Your task to perform on an android device: View the shopping cart on target. Search for "logitech g pro" on target, select the first entry, and add it to the cart. Image 0: 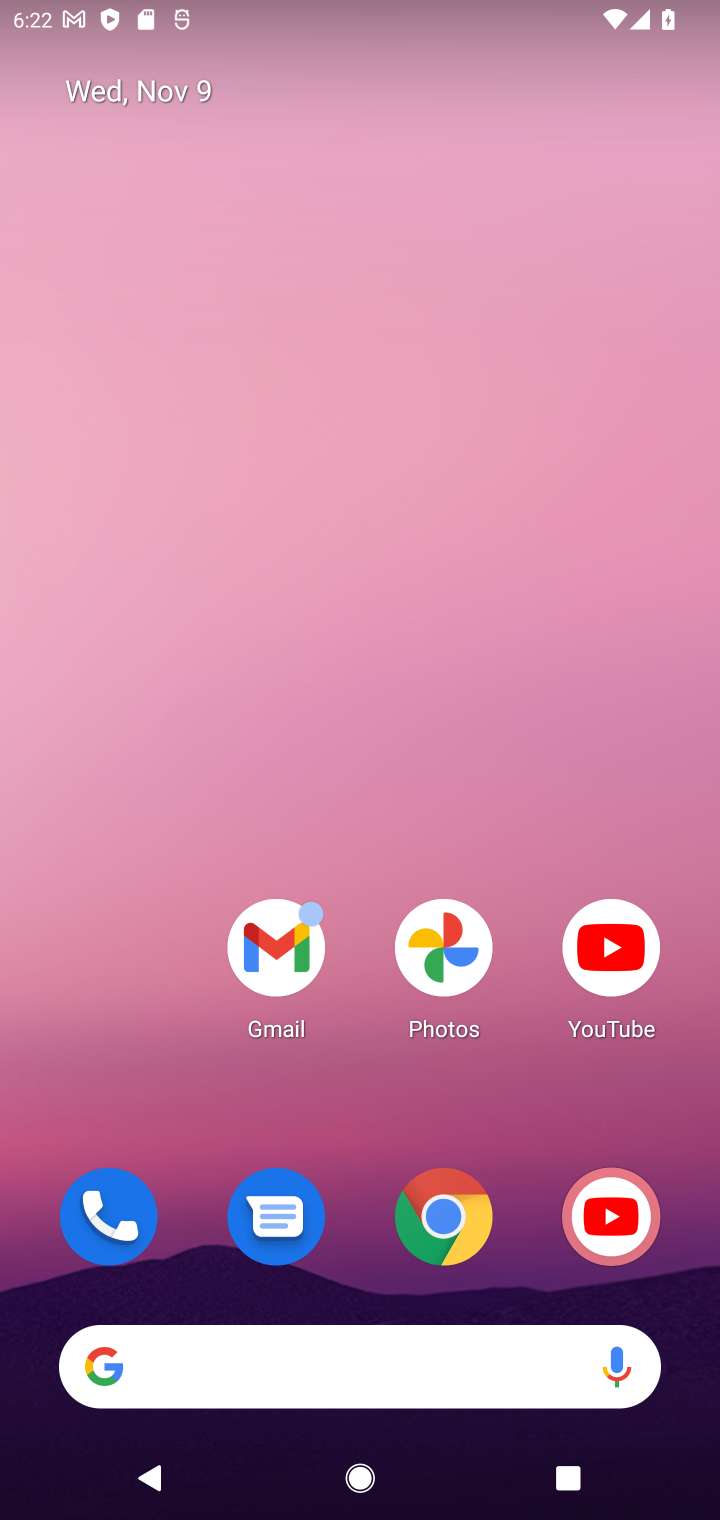
Step 0: drag from (361, 1296) to (423, 298)
Your task to perform on an android device: View the shopping cart on target. Search for "logitech g pro" on target, select the first entry, and add it to the cart. Image 1: 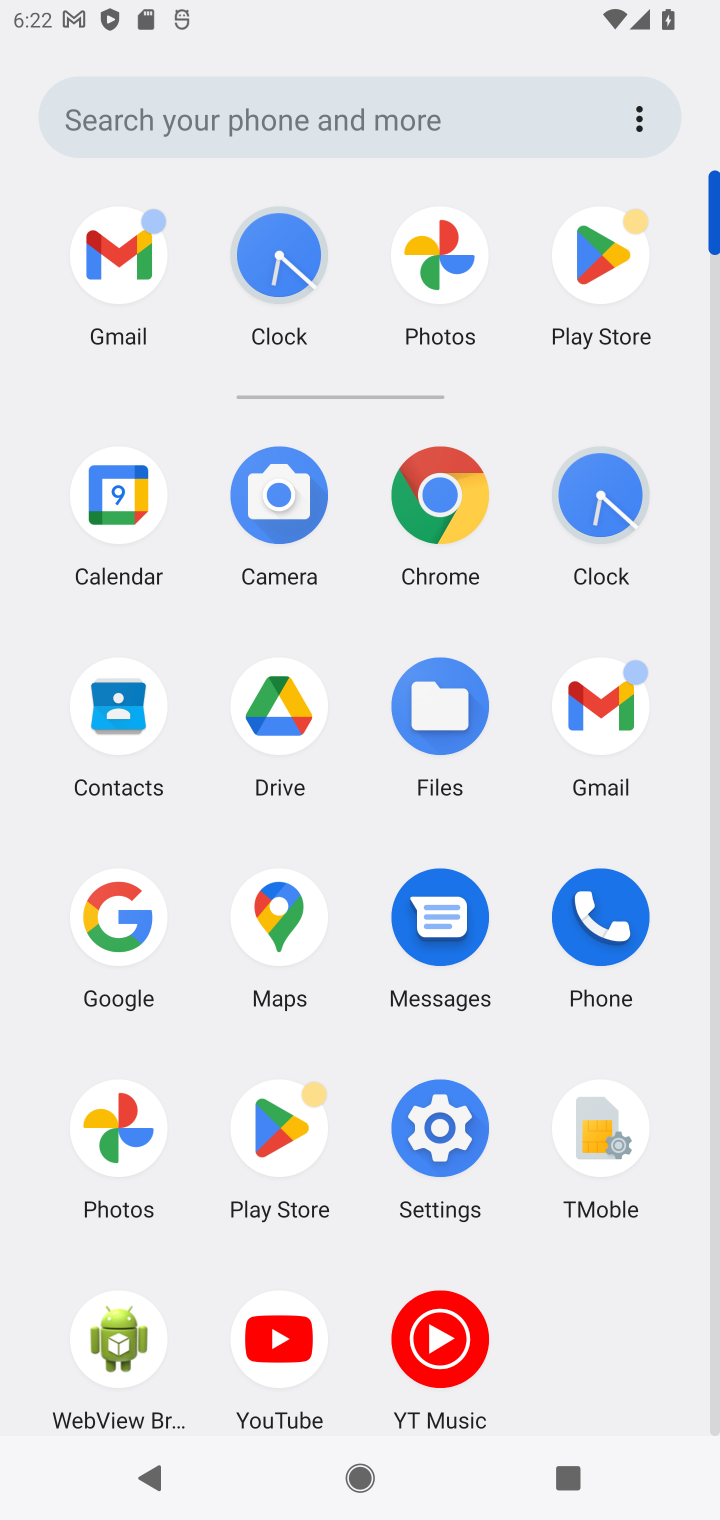
Step 1: click (444, 501)
Your task to perform on an android device: View the shopping cart on target. Search for "logitech g pro" on target, select the first entry, and add it to the cart. Image 2: 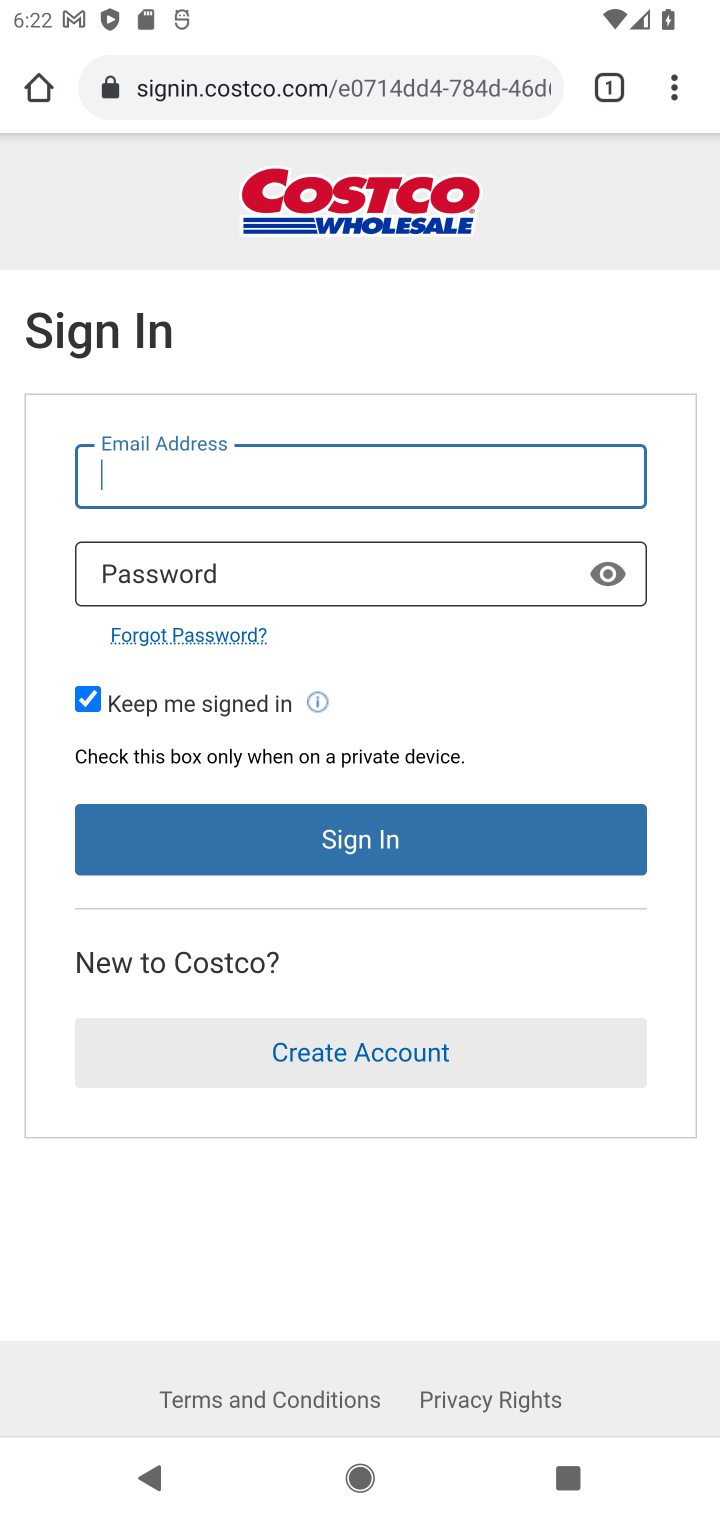
Step 2: click (418, 85)
Your task to perform on an android device: View the shopping cart on target. Search for "logitech g pro" on target, select the first entry, and add it to the cart. Image 3: 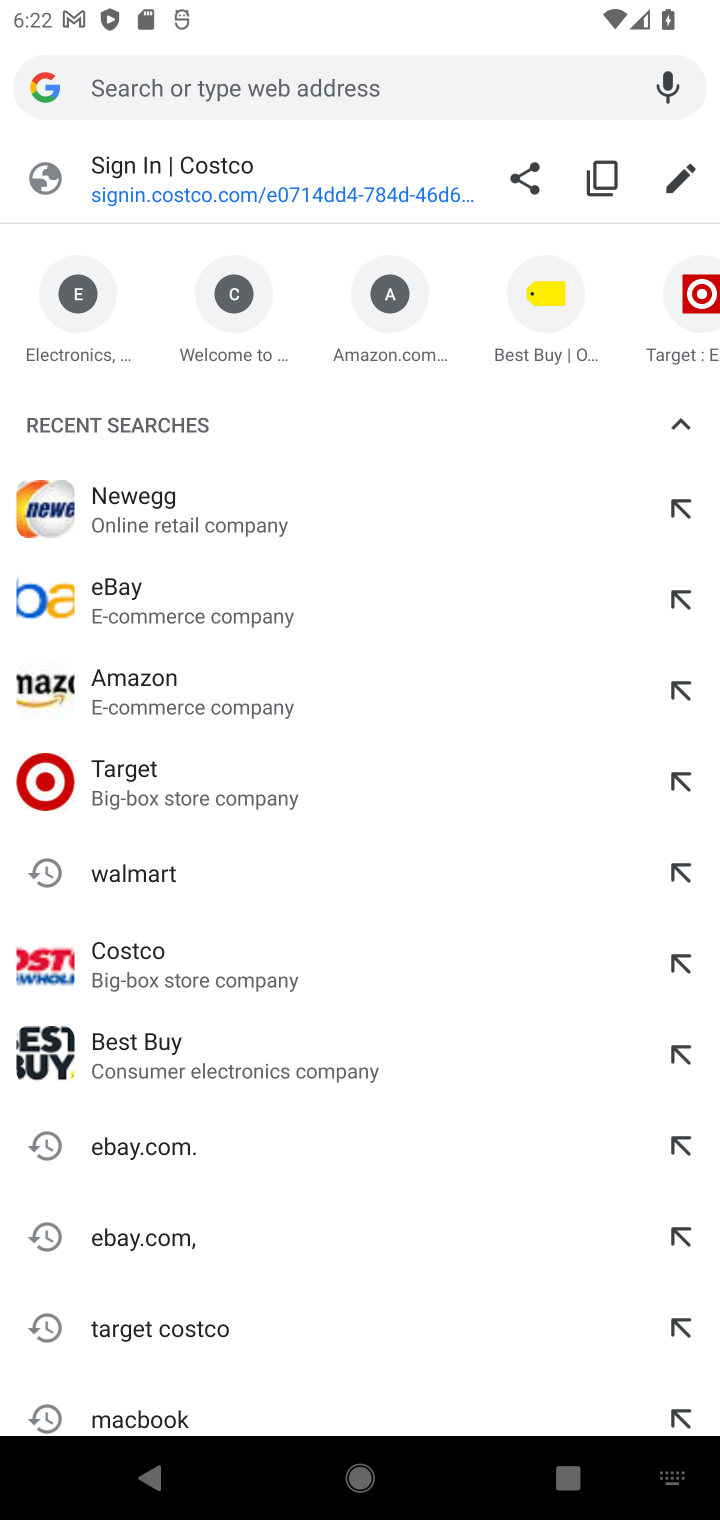
Step 3: type "target.com"
Your task to perform on an android device: View the shopping cart on target. Search for "logitech g pro" on target, select the first entry, and add it to the cart. Image 4: 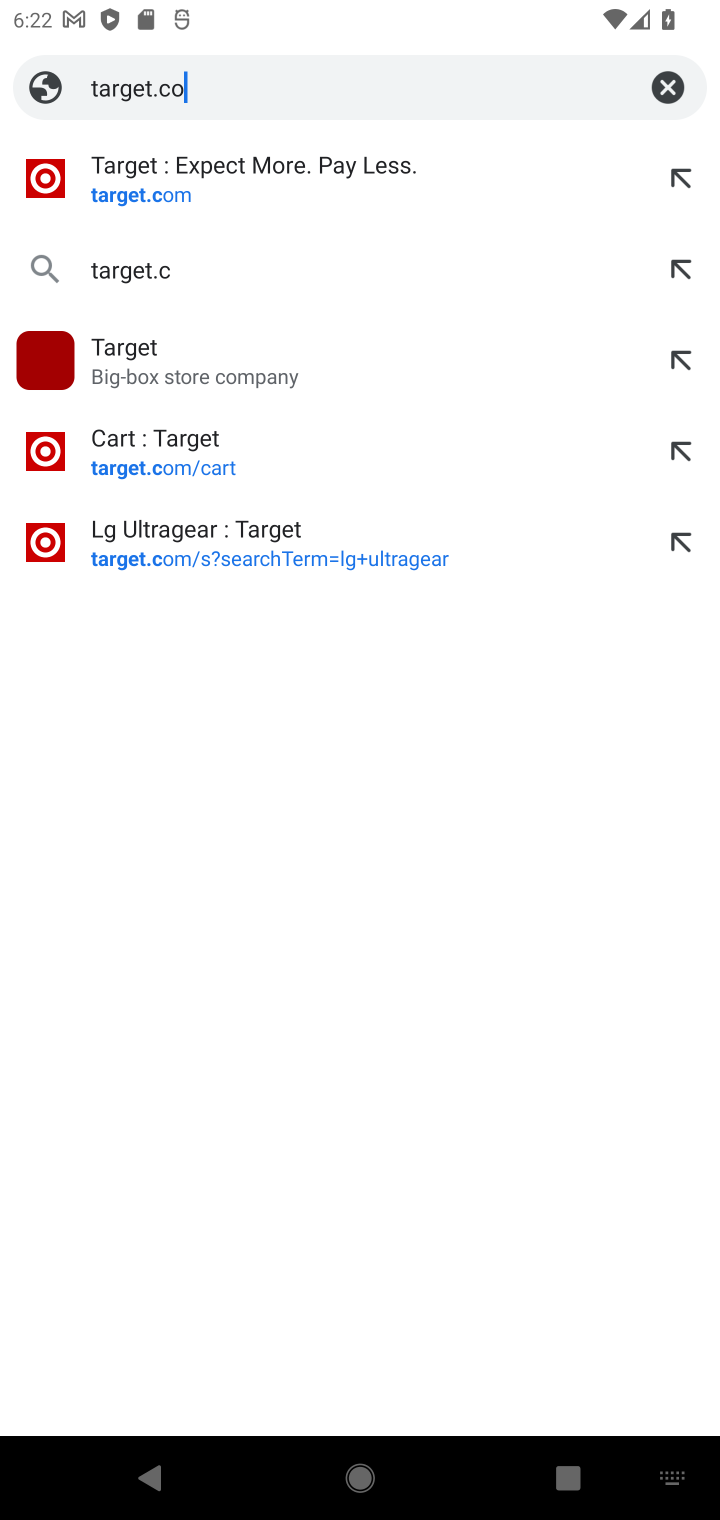
Step 4: press enter
Your task to perform on an android device: View the shopping cart on target. Search for "logitech g pro" on target, select the first entry, and add it to the cart. Image 5: 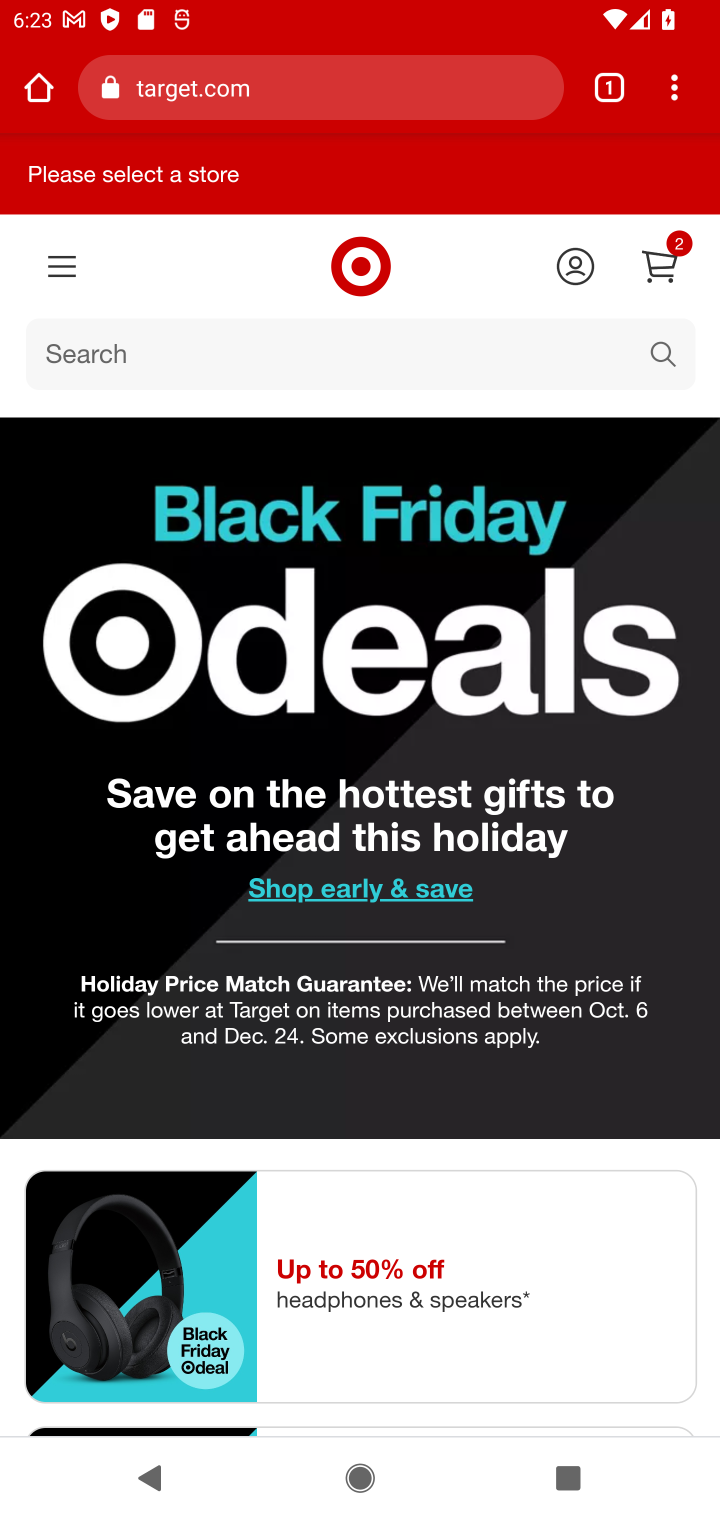
Step 5: click (662, 256)
Your task to perform on an android device: View the shopping cart on target. Search for "logitech g pro" on target, select the first entry, and add it to the cart. Image 6: 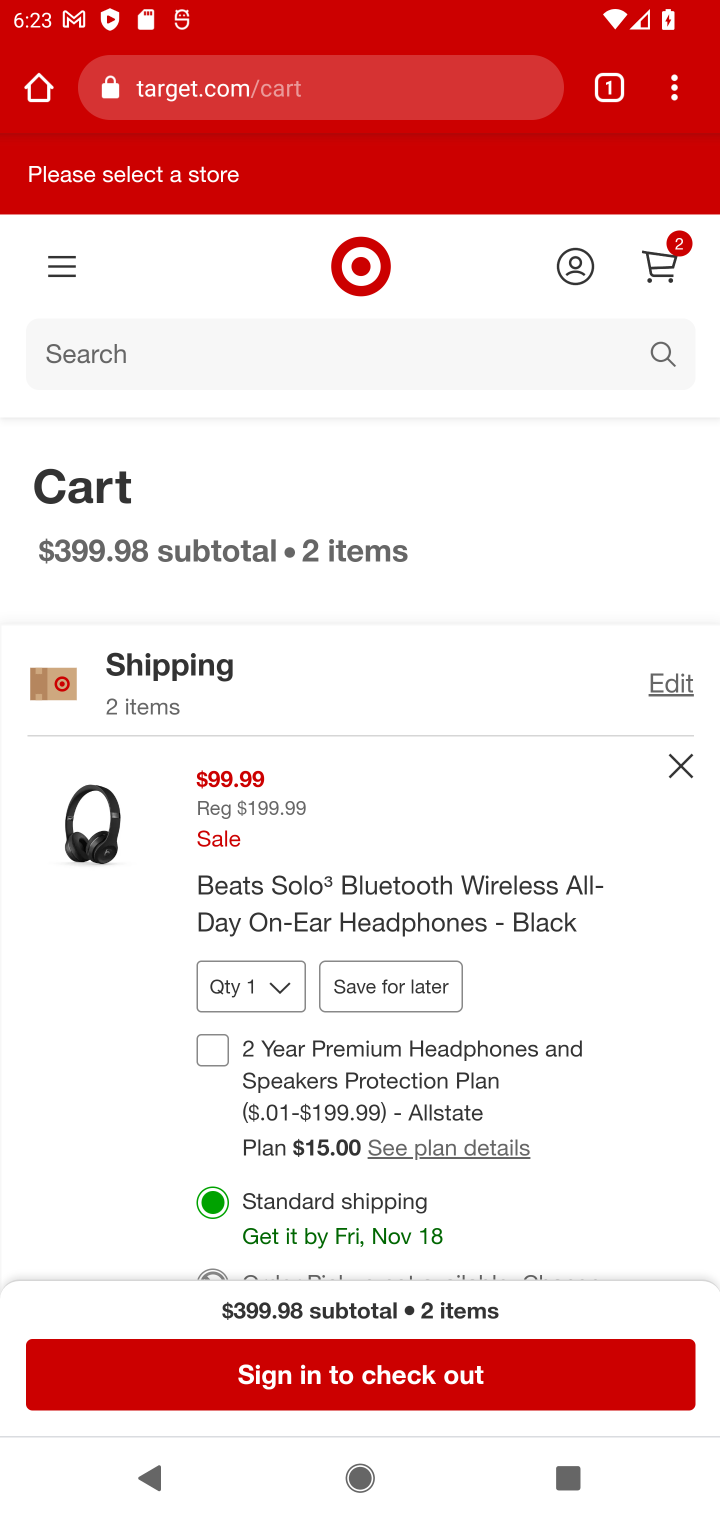
Step 6: click (437, 333)
Your task to perform on an android device: View the shopping cart on target. Search for "logitech g pro" on target, select the first entry, and add it to the cart. Image 7: 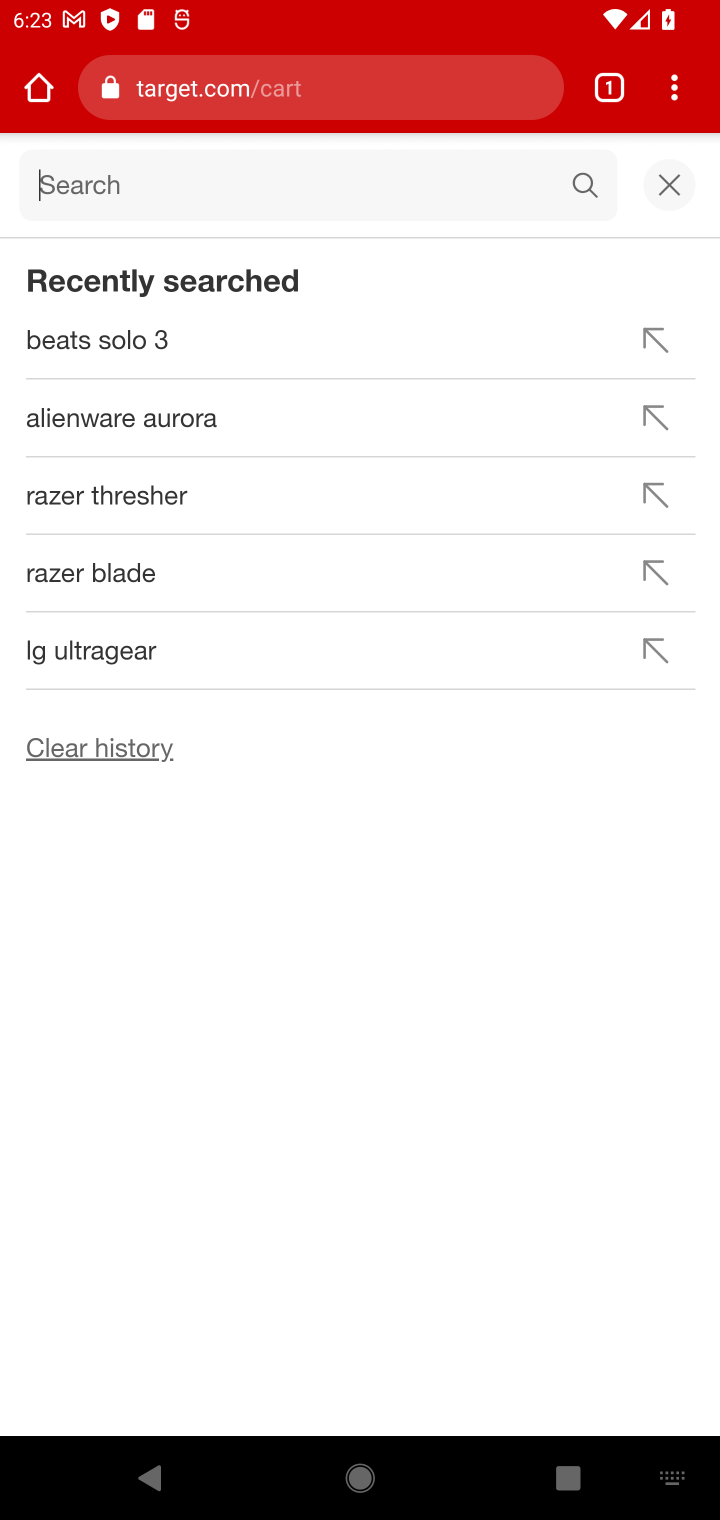
Step 7: type "logitech g pro"
Your task to perform on an android device: View the shopping cart on target. Search for "logitech g pro" on target, select the first entry, and add it to the cart. Image 8: 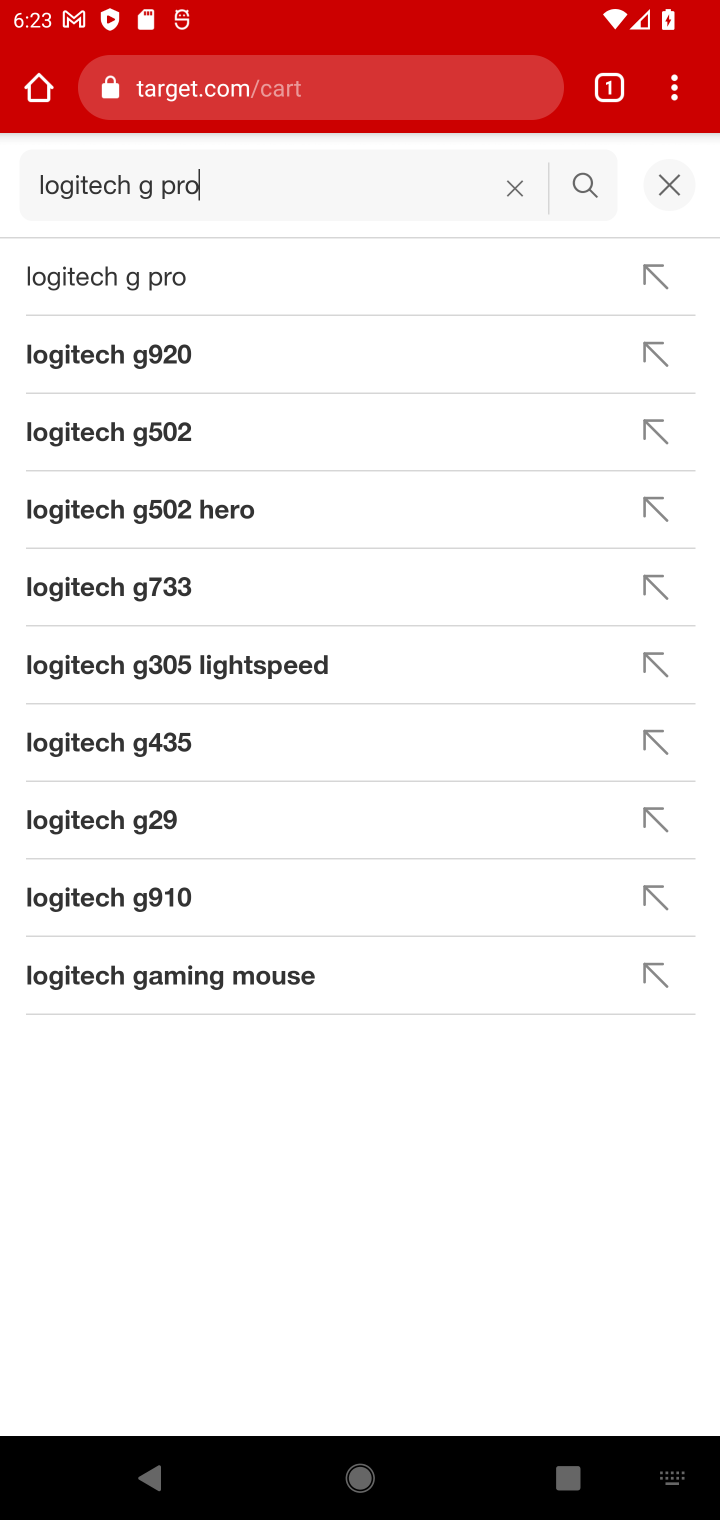
Step 8: press enter
Your task to perform on an android device: View the shopping cart on target. Search for "logitech g pro" on target, select the first entry, and add it to the cart. Image 9: 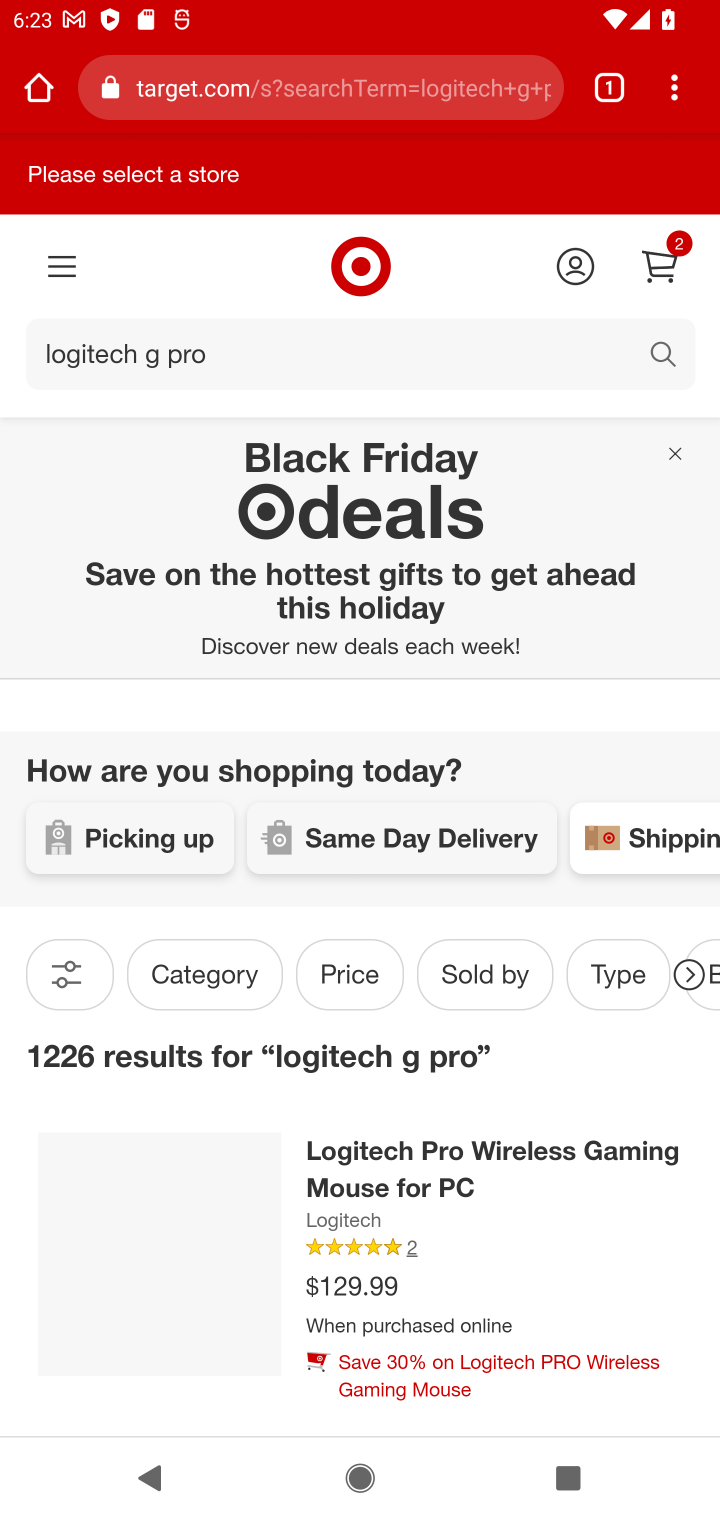
Step 9: task complete